Your task to perform on an android device: empty trash in google photos Image 0: 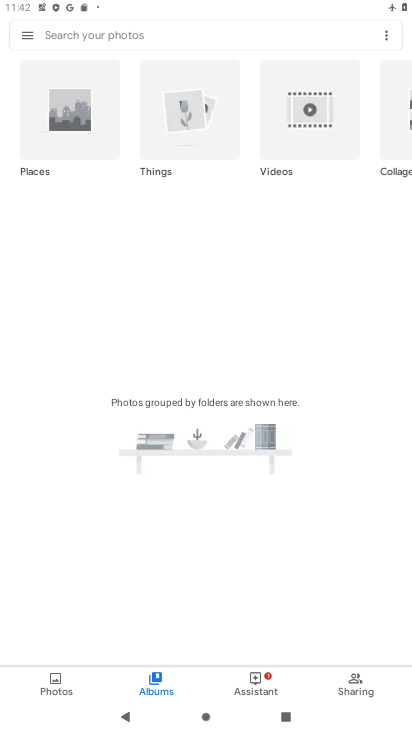
Step 0: press home button
Your task to perform on an android device: empty trash in google photos Image 1: 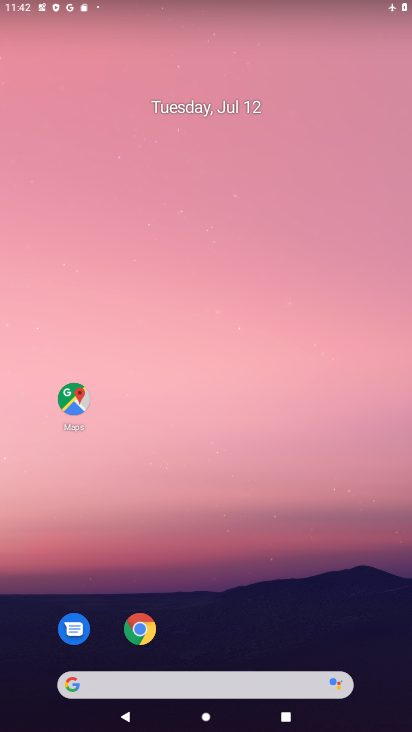
Step 1: drag from (144, 629) to (216, 114)
Your task to perform on an android device: empty trash in google photos Image 2: 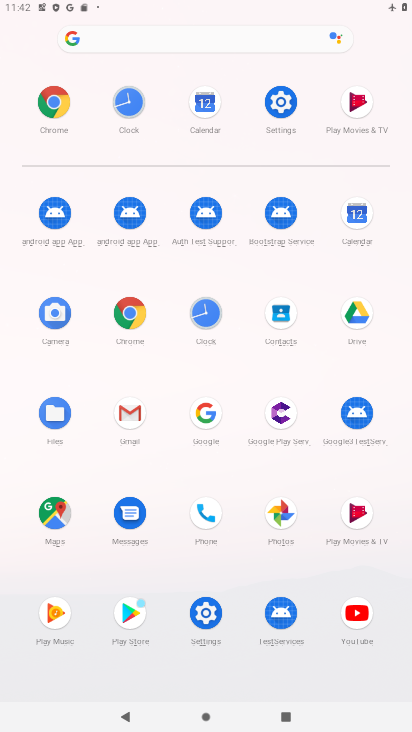
Step 2: click (132, 423)
Your task to perform on an android device: empty trash in google photos Image 3: 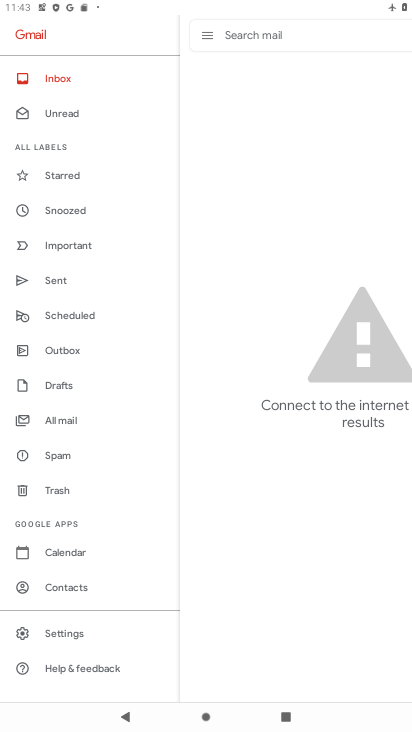
Step 3: click (56, 490)
Your task to perform on an android device: empty trash in google photos Image 4: 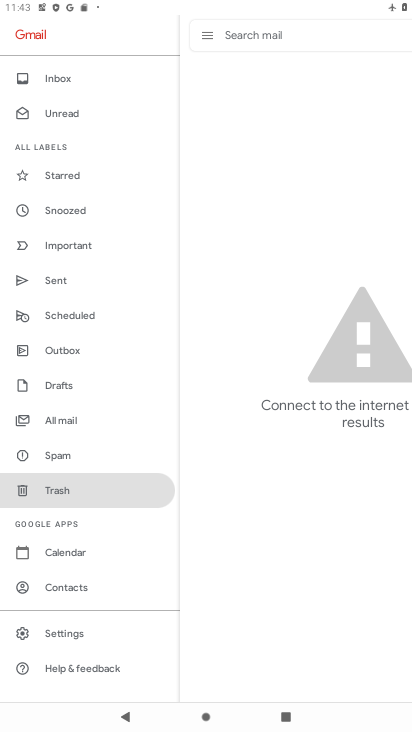
Step 4: task complete